Your task to perform on an android device: check data usage Image 0: 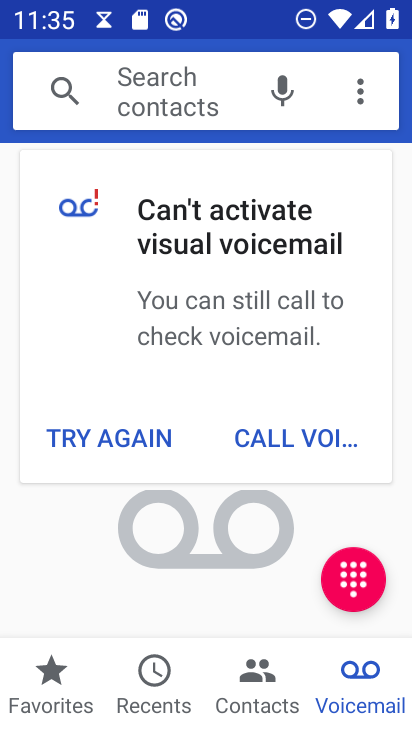
Step 0: drag from (243, 8) to (144, 720)
Your task to perform on an android device: check data usage Image 1: 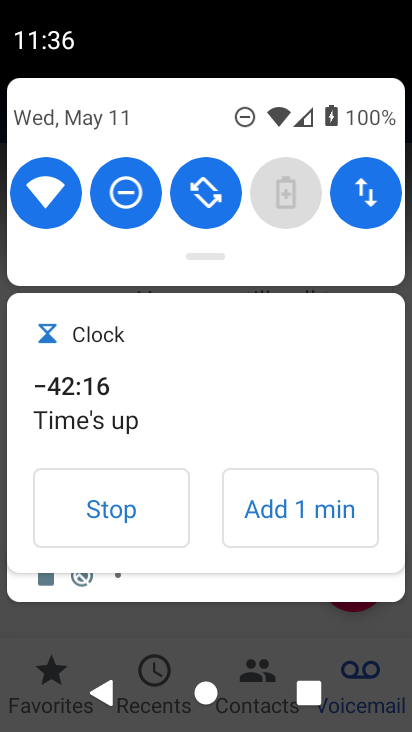
Step 1: click (359, 202)
Your task to perform on an android device: check data usage Image 2: 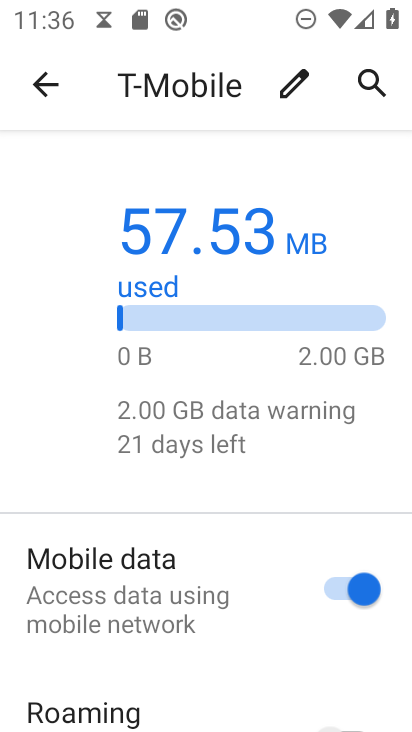
Step 2: task complete